Your task to perform on an android device: check android version Image 0: 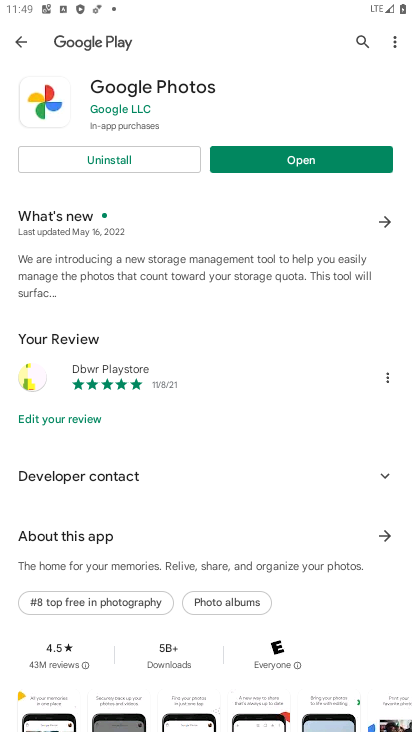
Step 0: press home button
Your task to perform on an android device: check android version Image 1: 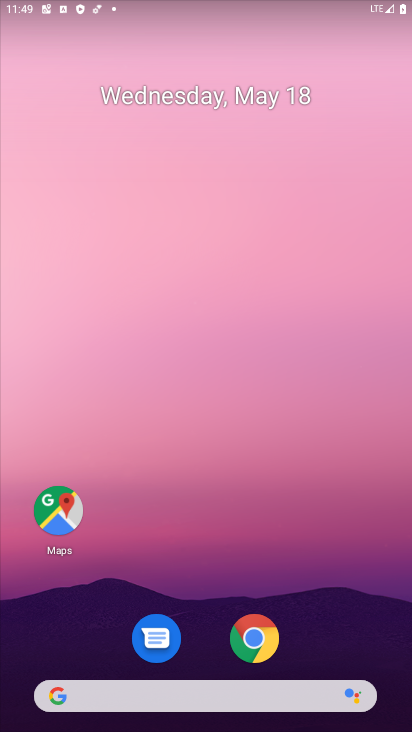
Step 1: drag from (370, 626) to (209, 1)
Your task to perform on an android device: check android version Image 2: 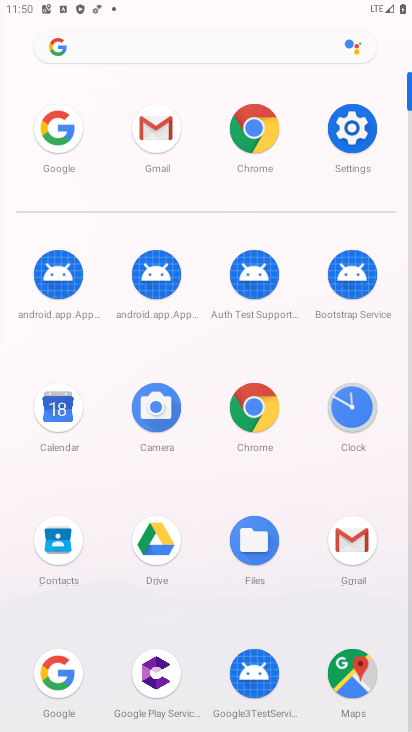
Step 2: click (365, 136)
Your task to perform on an android device: check android version Image 3: 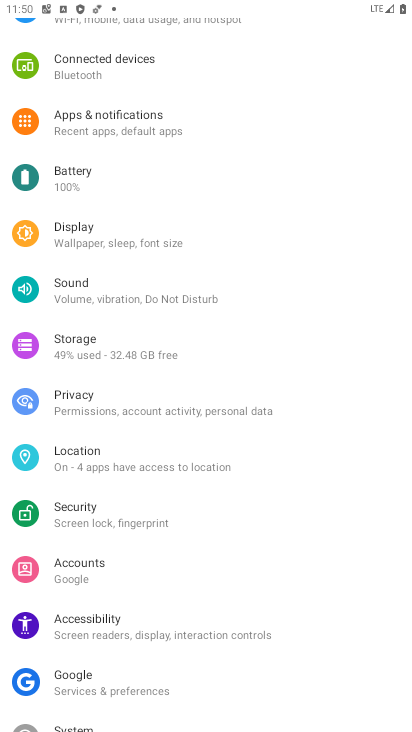
Step 3: drag from (181, 666) to (173, 79)
Your task to perform on an android device: check android version Image 4: 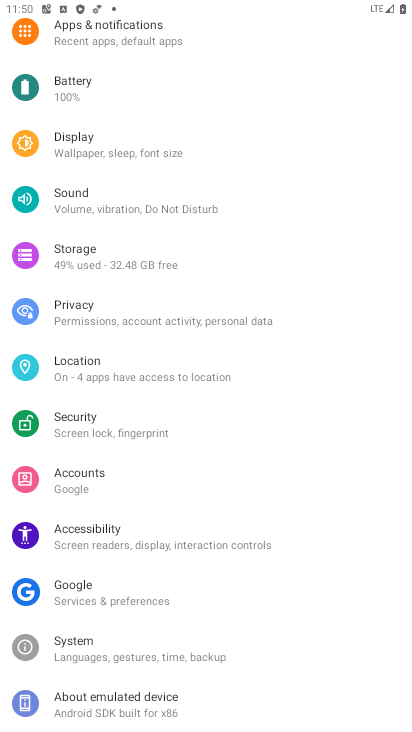
Step 4: drag from (105, 681) to (189, 230)
Your task to perform on an android device: check android version Image 5: 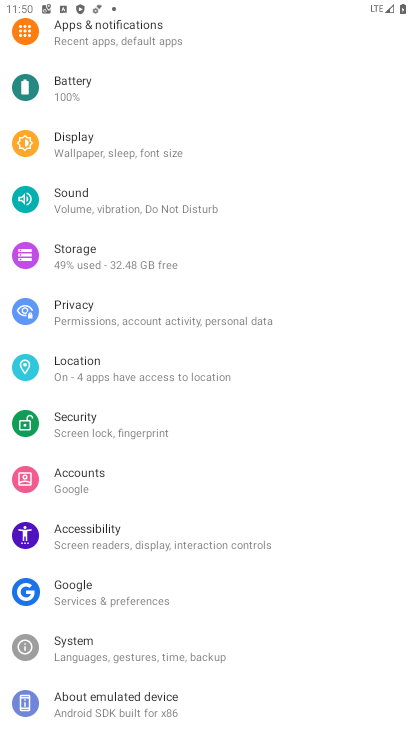
Step 5: click (208, 696)
Your task to perform on an android device: check android version Image 6: 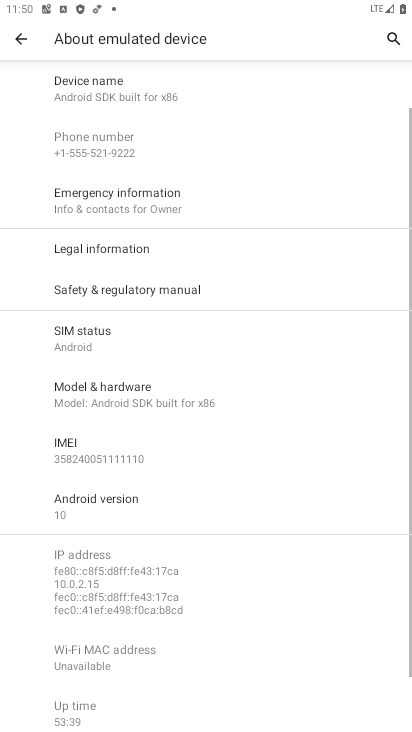
Step 6: click (171, 499)
Your task to perform on an android device: check android version Image 7: 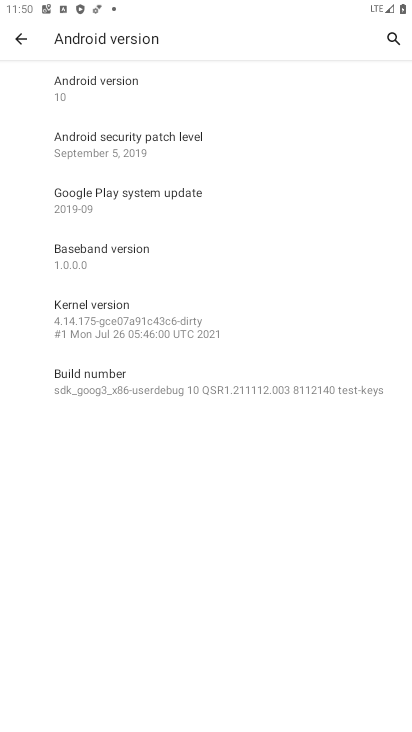
Step 7: task complete